Your task to perform on an android device: Go to Google maps Image 0: 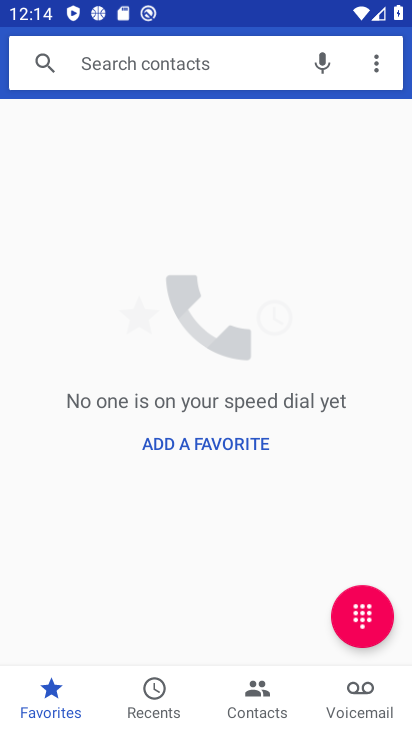
Step 0: press home button
Your task to perform on an android device: Go to Google maps Image 1: 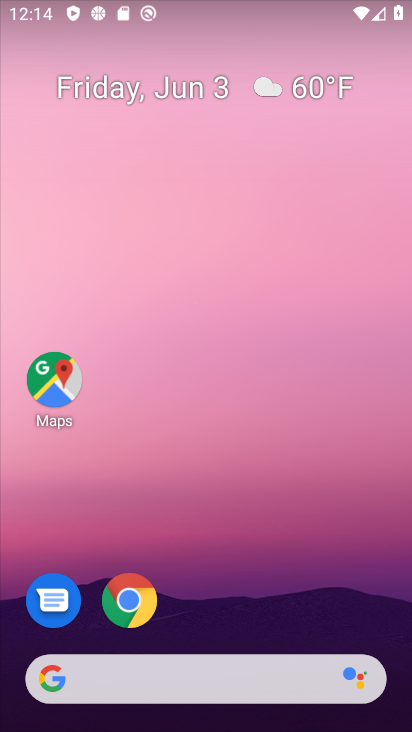
Step 1: click (53, 381)
Your task to perform on an android device: Go to Google maps Image 2: 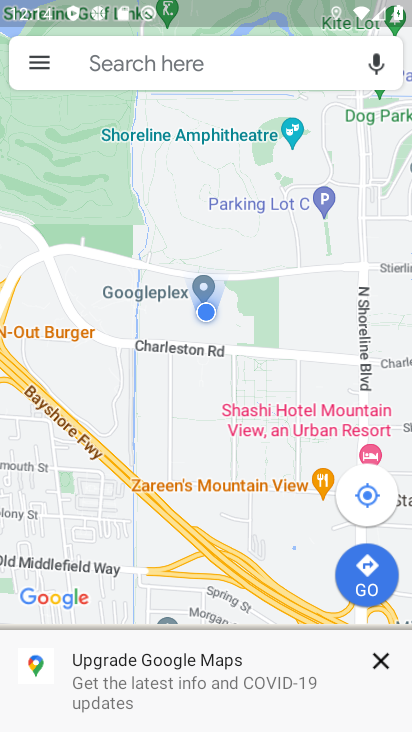
Step 2: task complete